Your task to perform on an android device: add a label to a message in the gmail app Image 0: 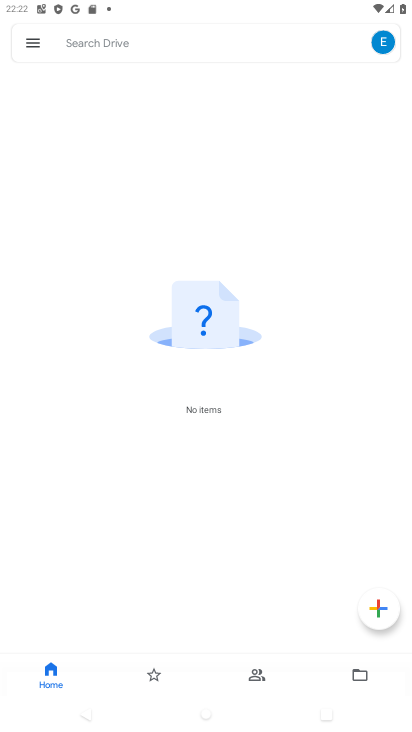
Step 0: press home button
Your task to perform on an android device: add a label to a message in the gmail app Image 1: 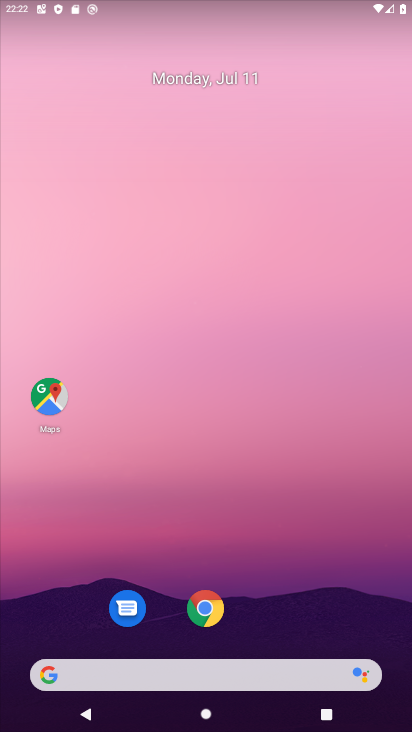
Step 1: drag from (30, 696) to (249, 50)
Your task to perform on an android device: add a label to a message in the gmail app Image 2: 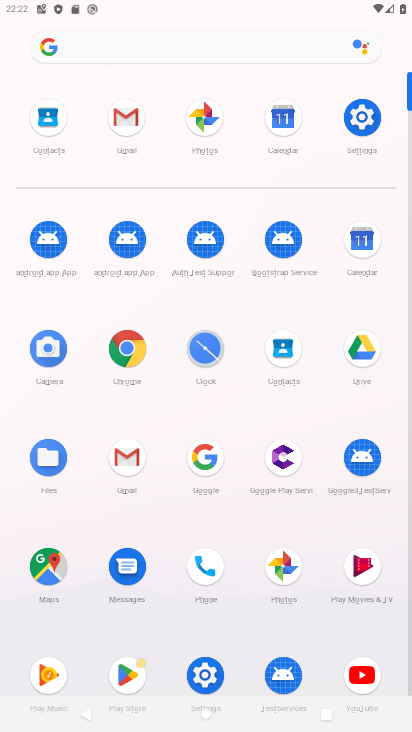
Step 2: click (139, 448)
Your task to perform on an android device: add a label to a message in the gmail app Image 3: 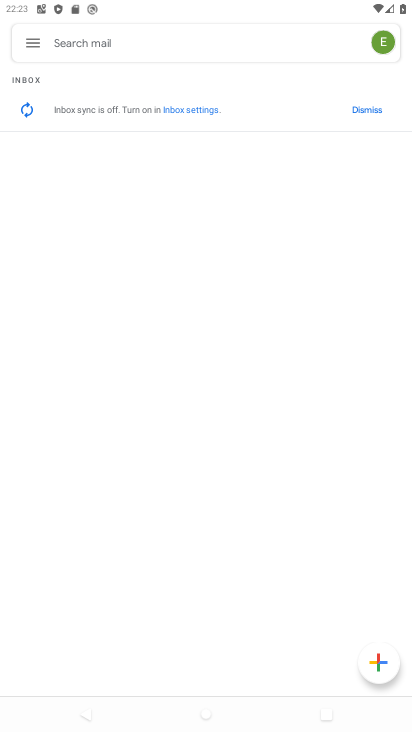
Step 3: task complete